Your task to perform on an android device: turn on translation in the chrome app Image 0: 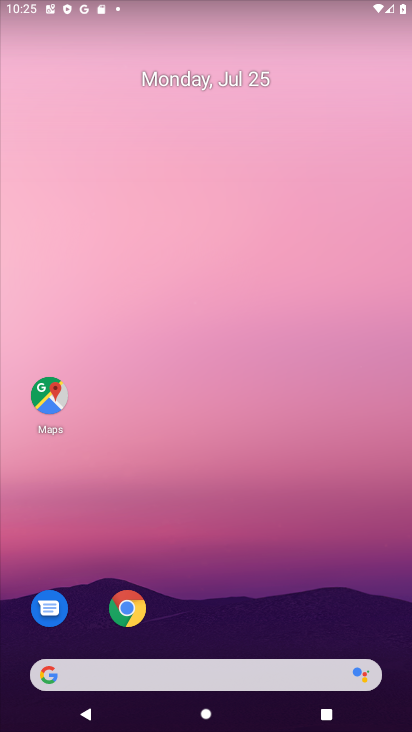
Step 0: drag from (202, 580) to (209, 54)
Your task to perform on an android device: turn on translation in the chrome app Image 1: 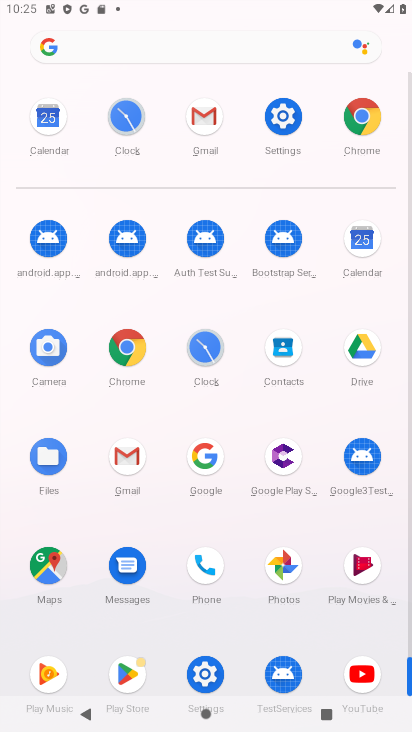
Step 1: click (359, 129)
Your task to perform on an android device: turn on translation in the chrome app Image 2: 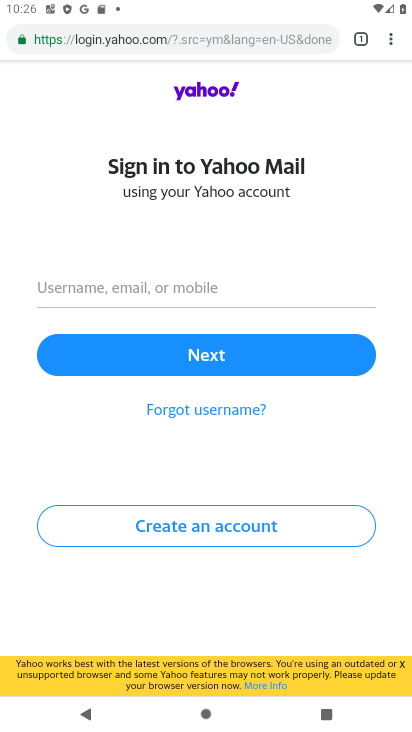
Step 2: click (393, 46)
Your task to perform on an android device: turn on translation in the chrome app Image 3: 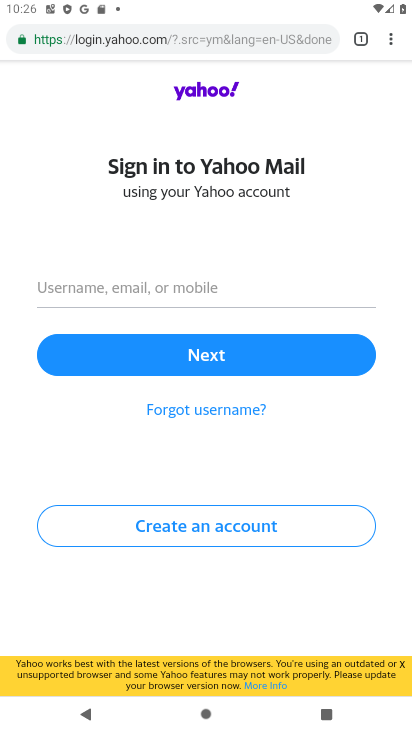
Step 3: click (391, 39)
Your task to perform on an android device: turn on translation in the chrome app Image 4: 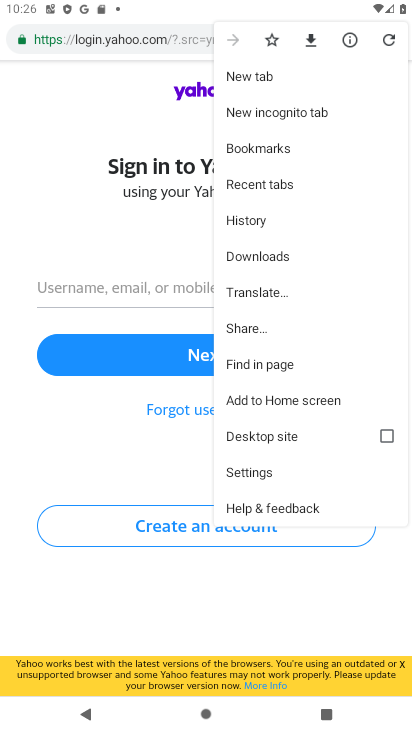
Step 4: click (266, 290)
Your task to perform on an android device: turn on translation in the chrome app Image 5: 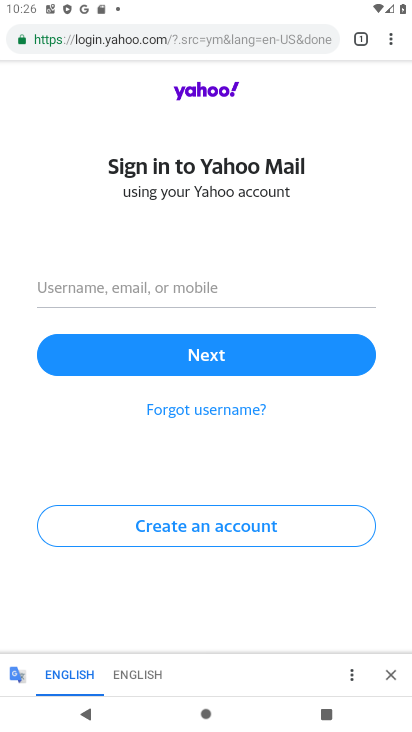
Step 5: click (350, 676)
Your task to perform on an android device: turn on translation in the chrome app Image 6: 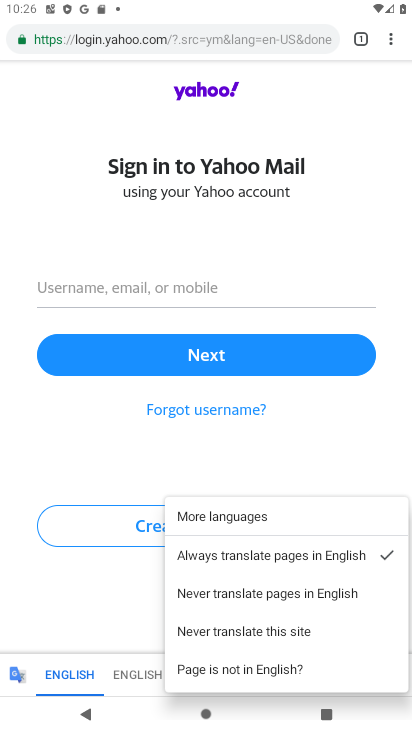
Step 6: click (258, 549)
Your task to perform on an android device: turn on translation in the chrome app Image 7: 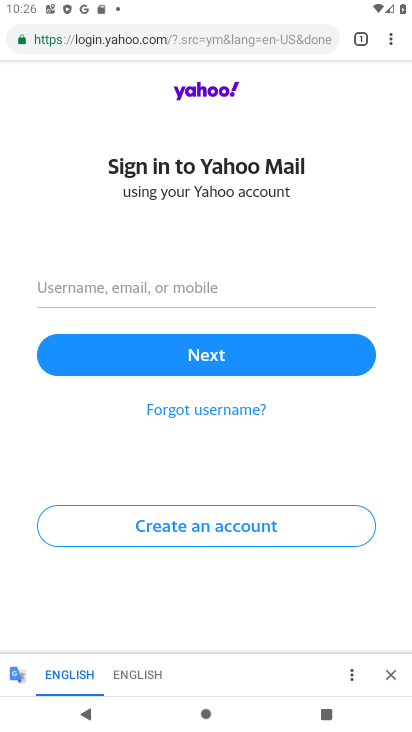
Step 7: task complete